Your task to perform on an android device: check data usage Image 0: 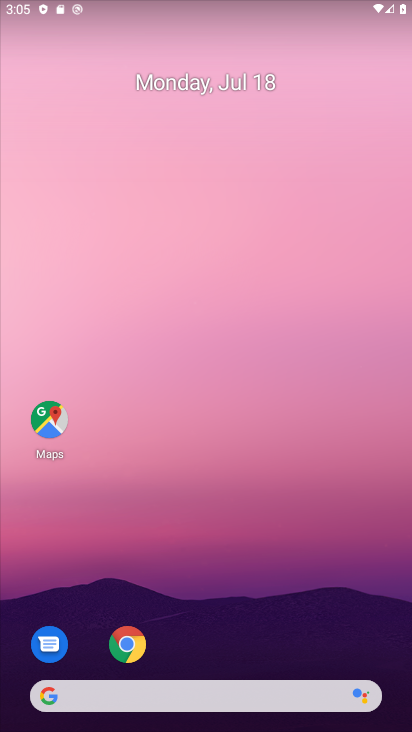
Step 0: click (313, 28)
Your task to perform on an android device: check data usage Image 1: 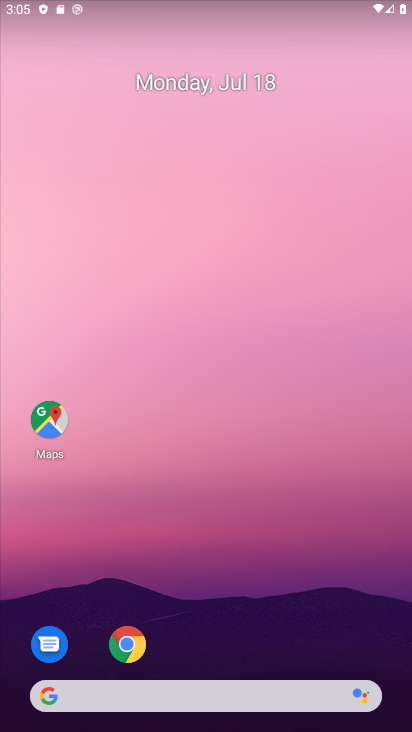
Step 1: drag from (354, 645) to (337, 151)
Your task to perform on an android device: check data usage Image 2: 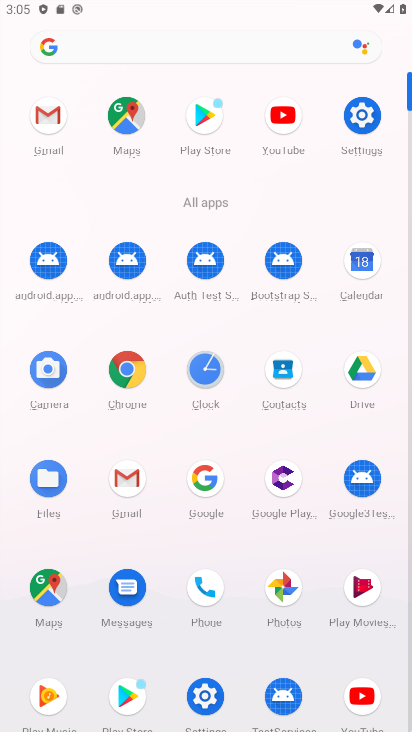
Step 2: click (204, 695)
Your task to perform on an android device: check data usage Image 3: 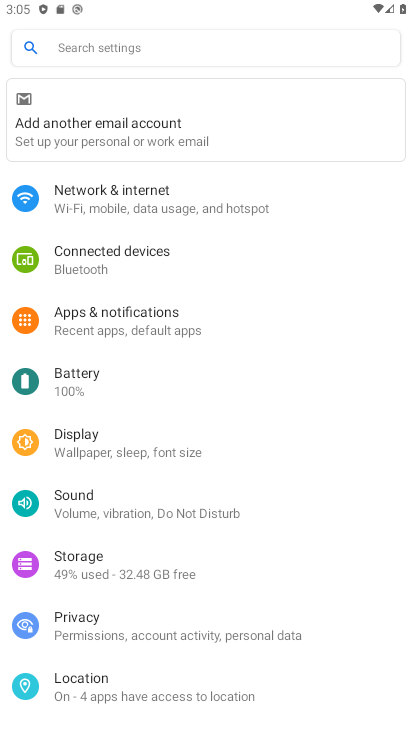
Step 3: click (92, 201)
Your task to perform on an android device: check data usage Image 4: 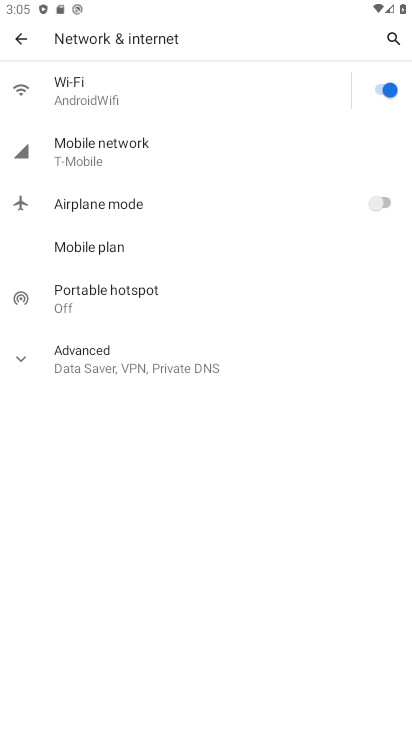
Step 4: click (99, 142)
Your task to perform on an android device: check data usage Image 5: 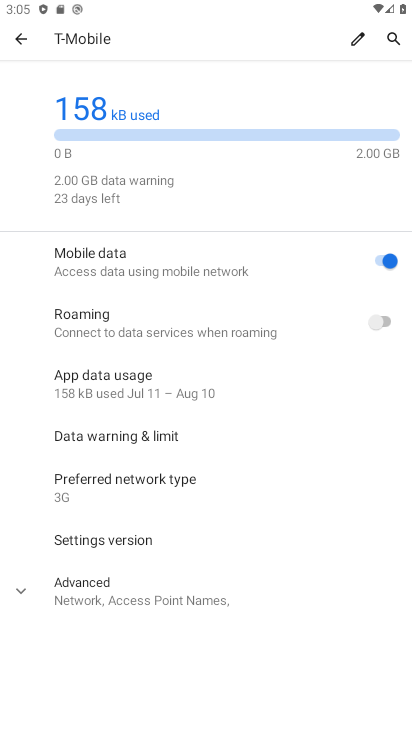
Step 5: task complete